Your task to perform on an android device: Add "macbook air" to the cart on bestbuy.com, then select checkout. Image 0: 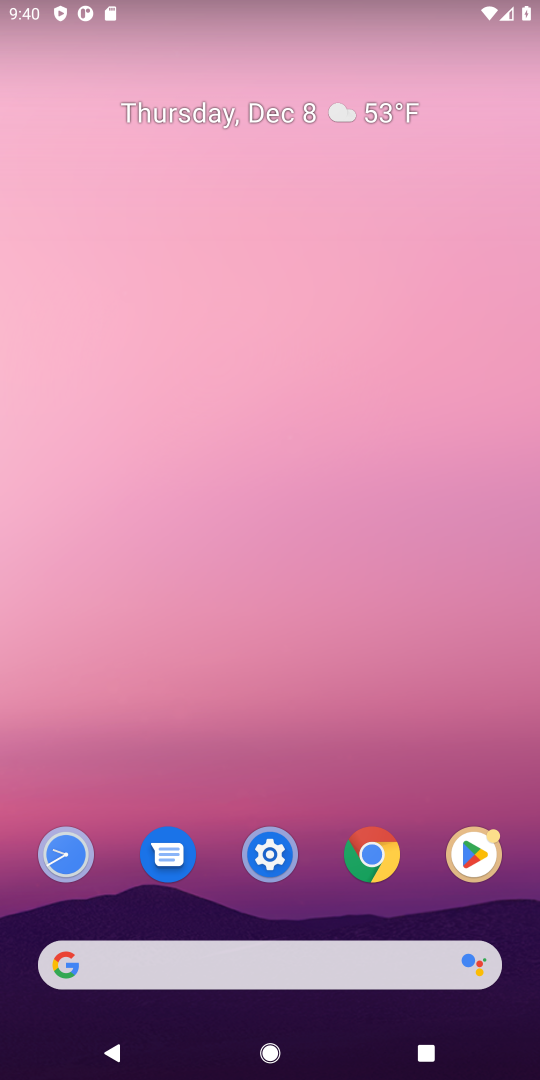
Step 0: press home button
Your task to perform on an android device: Add "macbook air" to the cart on bestbuy.com, then select checkout. Image 1: 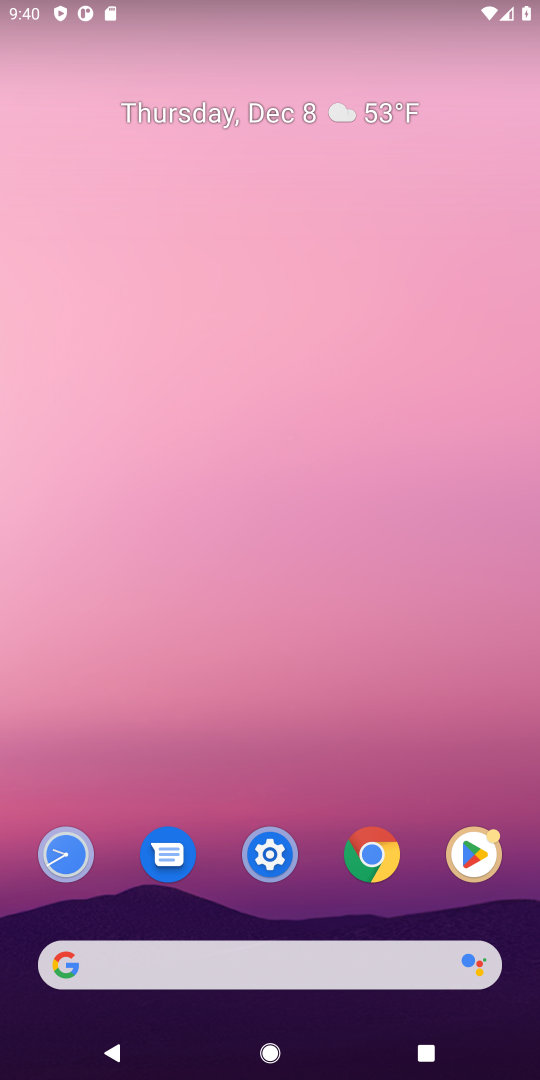
Step 1: click (83, 954)
Your task to perform on an android device: Add "macbook air" to the cart on bestbuy.com, then select checkout. Image 2: 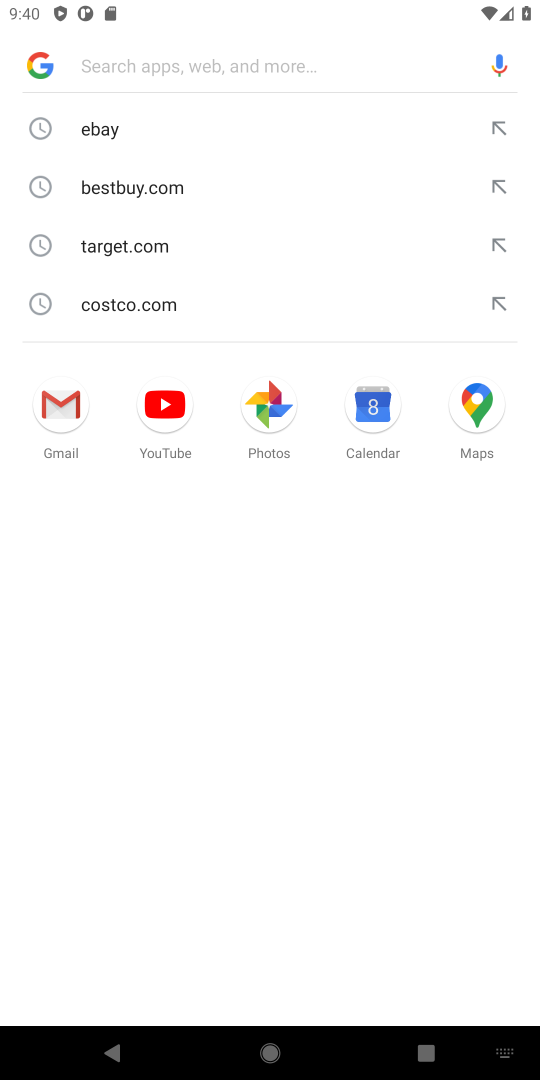
Step 2: type "bestbuy.com"
Your task to perform on an android device: Add "macbook air" to the cart on bestbuy.com, then select checkout. Image 3: 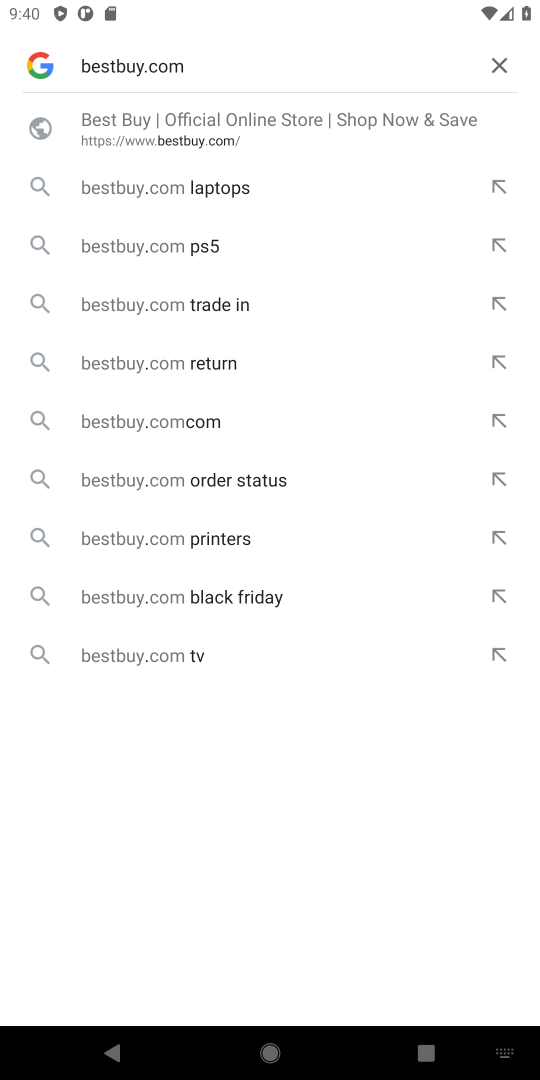
Step 3: press enter
Your task to perform on an android device: Add "macbook air" to the cart on bestbuy.com, then select checkout. Image 4: 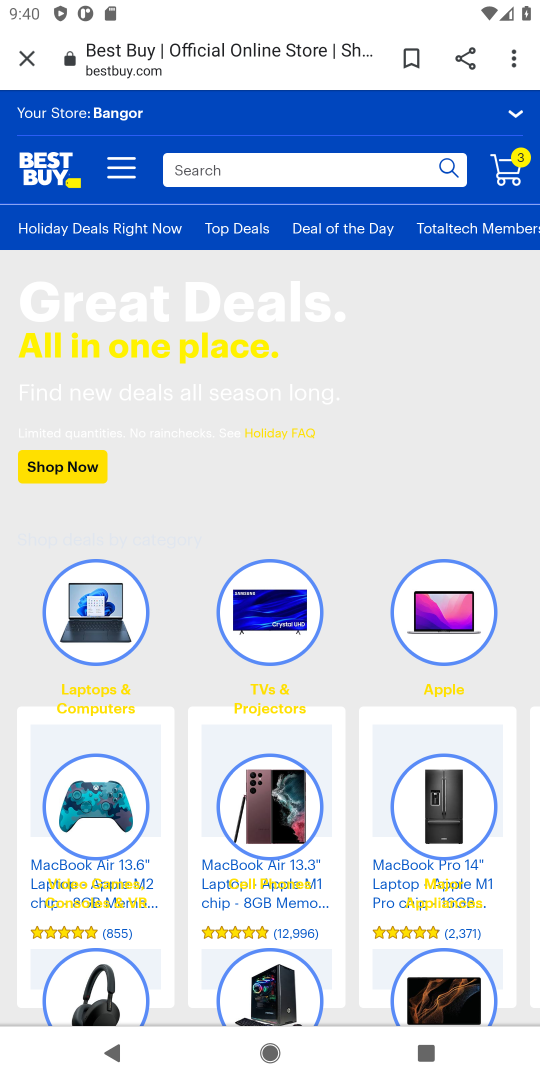
Step 4: click (216, 163)
Your task to perform on an android device: Add "macbook air" to the cart on bestbuy.com, then select checkout. Image 5: 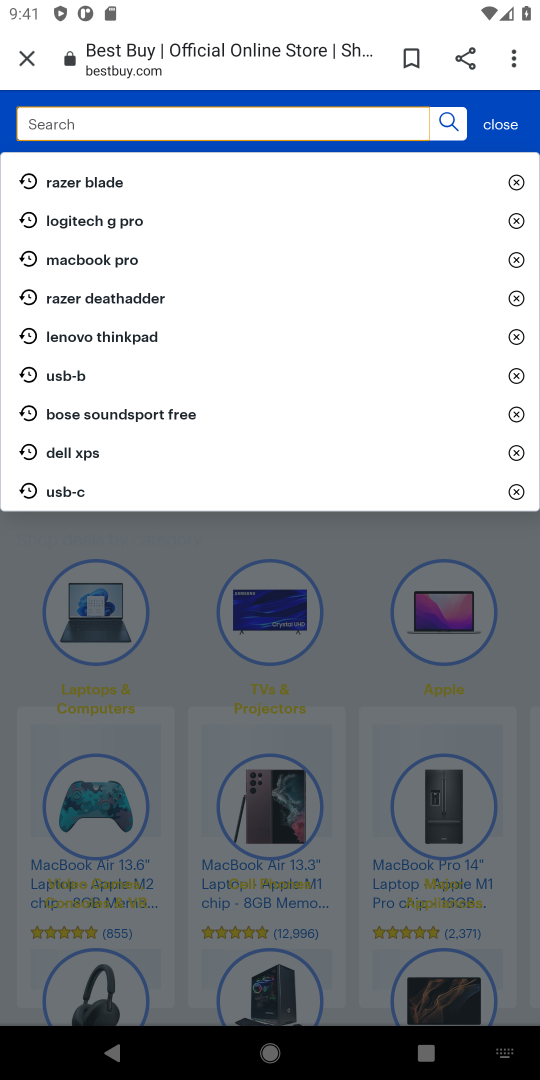
Step 5: type "macbook air"
Your task to perform on an android device: Add "macbook air" to the cart on bestbuy.com, then select checkout. Image 6: 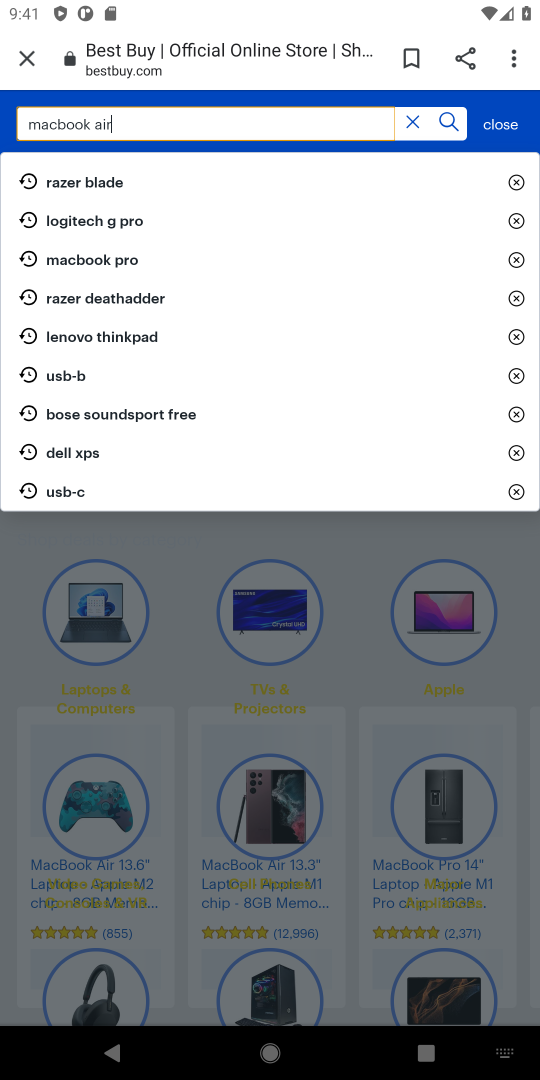
Step 6: press enter
Your task to perform on an android device: Add "macbook air" to the cart on bestbuy.com, then select checkout. Image 7: 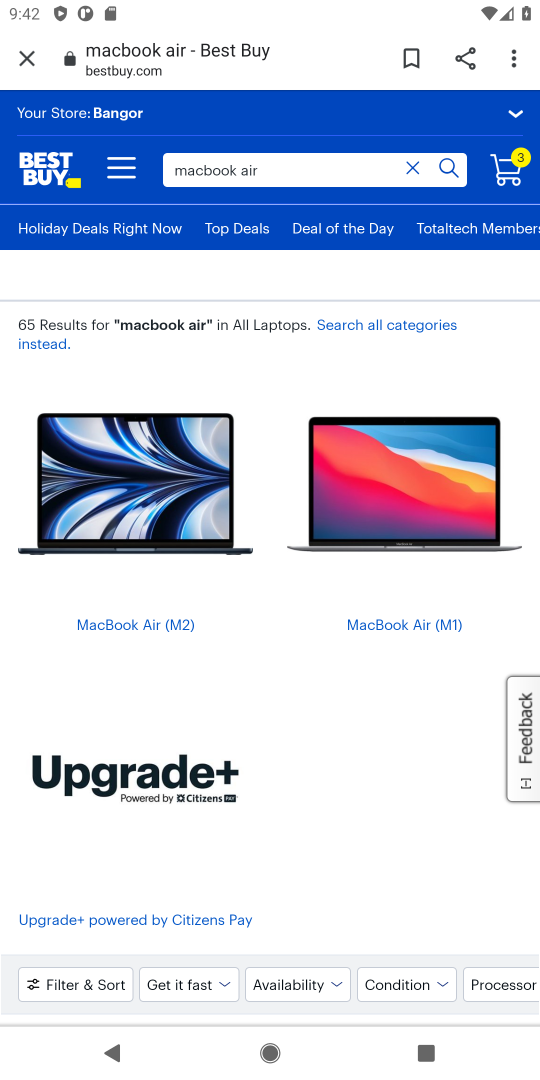
Step 7: task complete